Your task to perform on an android device: turn smart compose on in the gmail app Image 0: 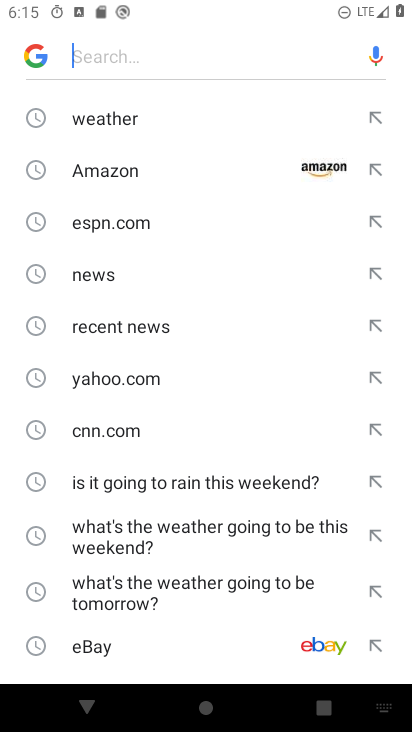
Step 0: press home button
Your task to perform on an android device: turn smart compose on in the gmail app Image 1: 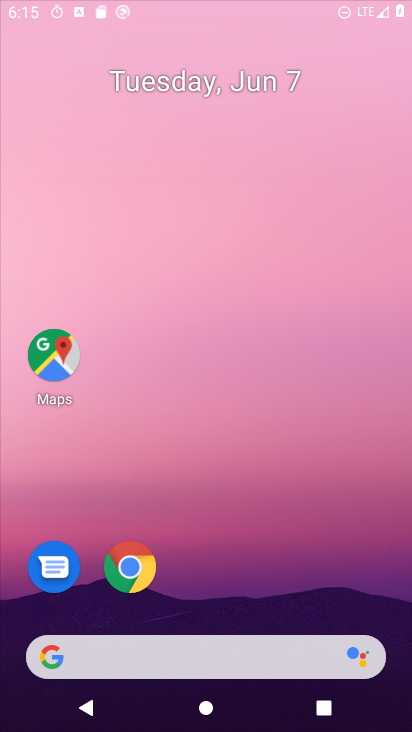
Step 1: drag from (279, 667) to (365, 31)
Your task to perform on an android device: turn smart compose on in the gmail app Image 2: 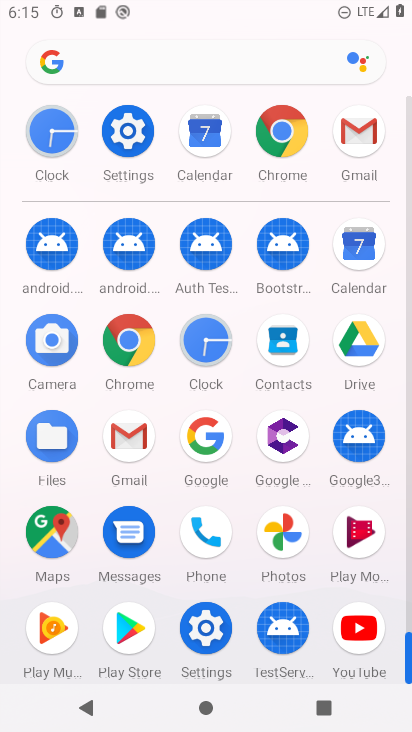
Step 2: click (124, 442)
Your task to perform on an android device: turn smart compose on in the gmail app Image 3: 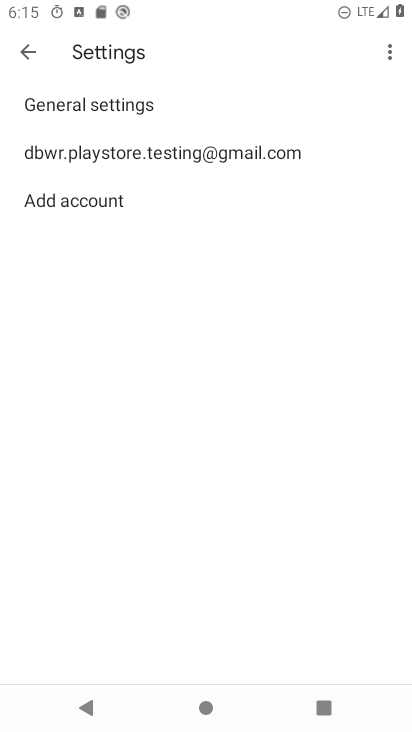
Step 3: click (184, 177)
Your task to perform on an android device: turn smart compose on in the gmail app Image 4: 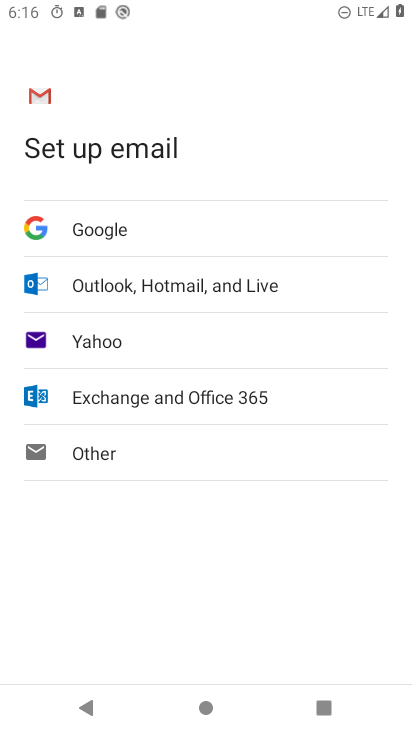
Step 4: press back button
Your task to perform on an android device: turn smart compose on in the gmail app Image 5: 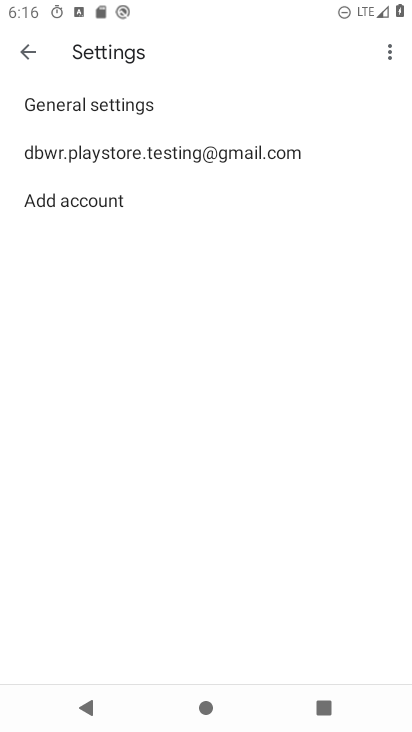
Step 5: click (146, 160)
Your task to perform on an android device: turn smart compose on in the gmail app Image 6: 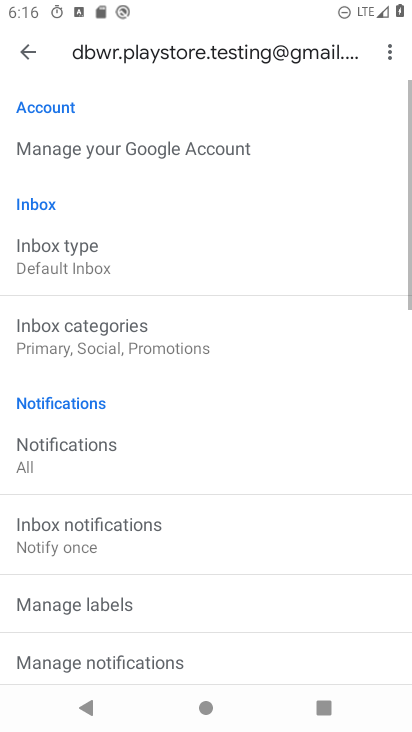
Step 6: task complete